Your task to perform on an android device: allow notifications from all sites in the chrome app Image 0: 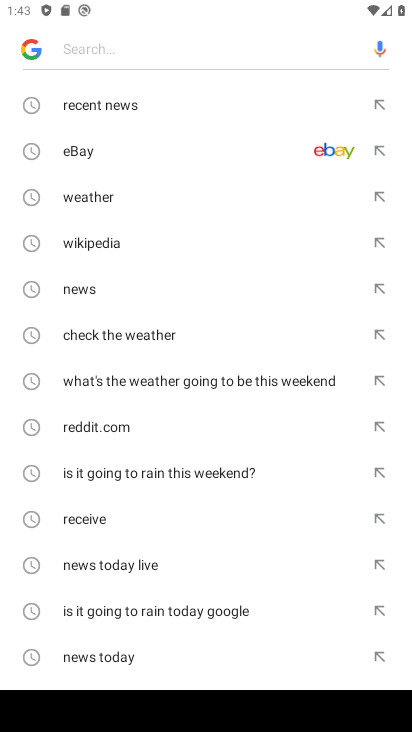
Step 0: press home button
Your task to perform on an android device: allow notifications from all sites in the chrome app Image 1: 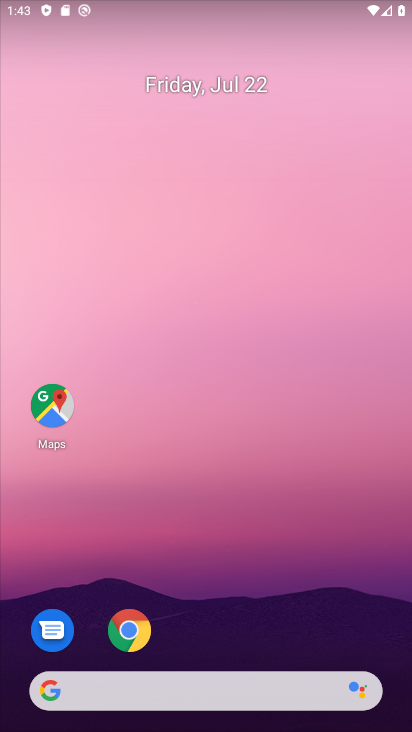
Step 1: click (129, 635)
Your task to perform on an android device: allow notifications from all sites in the chrome app Image 2: 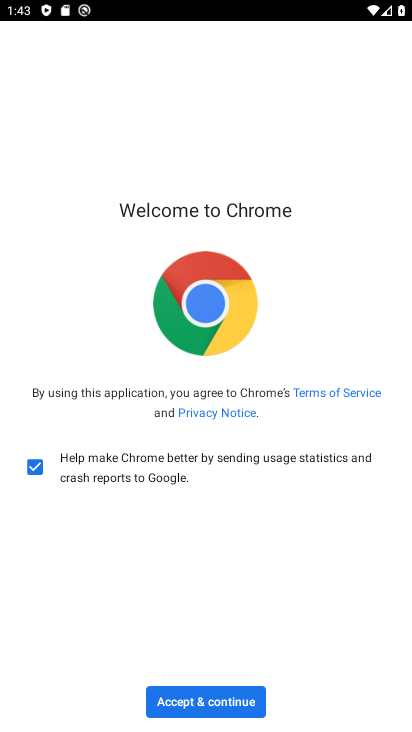
Step 2: click (194, 695)
Your task to perform on an android device: allow notifications from all sites in the chrome app Image 3: 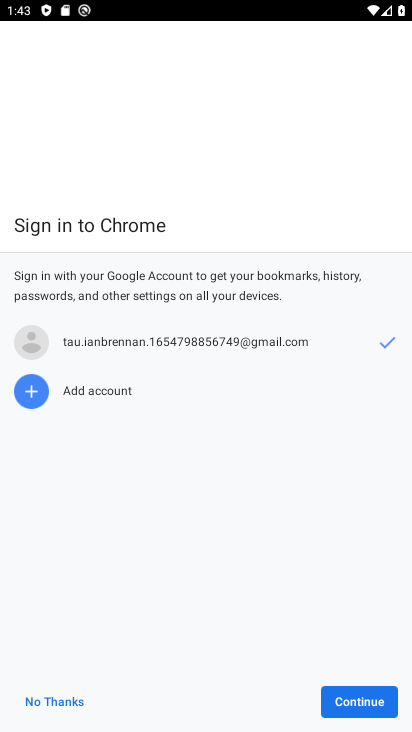
Step 3: click (364, 692)
Your task to perform on an android device: allow notifications from all sites in the chrome app Image 4: 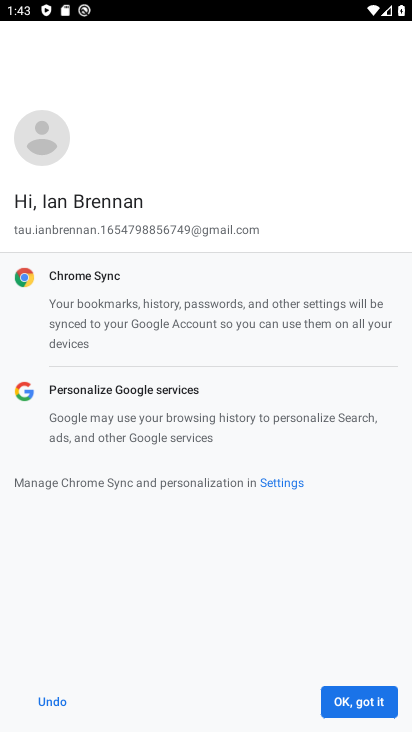
Step 4: click (342, 702)
Your task to perform on an android device: allow notifications from all sites in the chrome app Image 5: 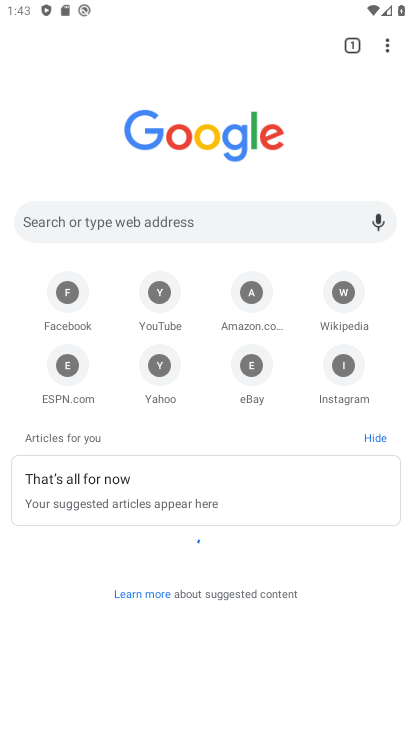
Step 5: click (377, 48)
Your task to perform on an android device: allow notifications from all sites in the chrome app Image 6: 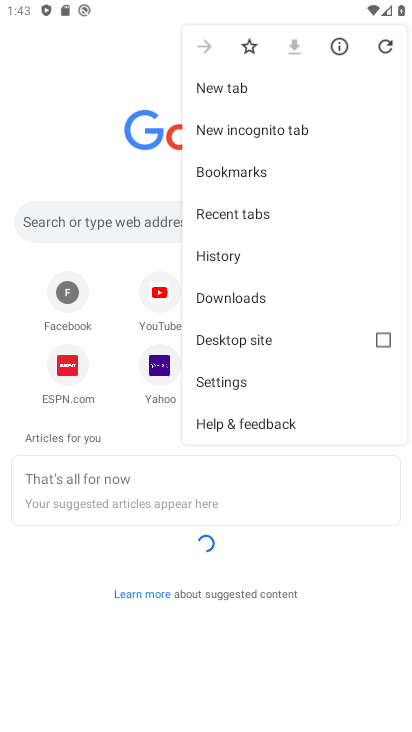
Step 6: click (232, 382)
Your task to perform on an android device: allow notifications from all sites in the chrome app Image 7: 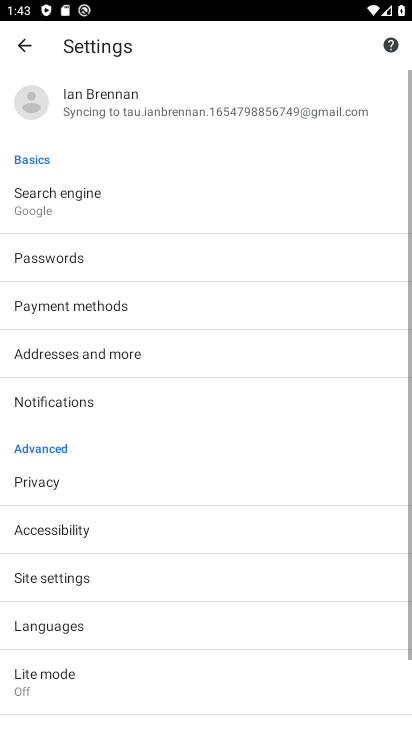
Step 7: click (72, 589)
Your task to perform on an android device: allow notifications from all sites in the chrome app Image 8: 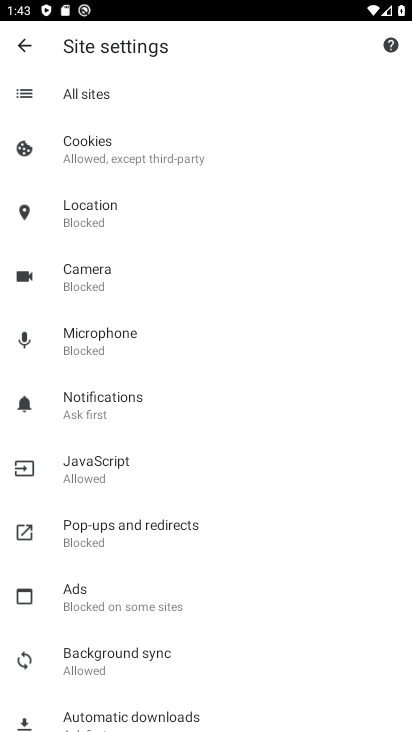
Step 8: click (118, 405)
Your task to perform on an android device: allow notifications from all sites in the chrome app Image 9: 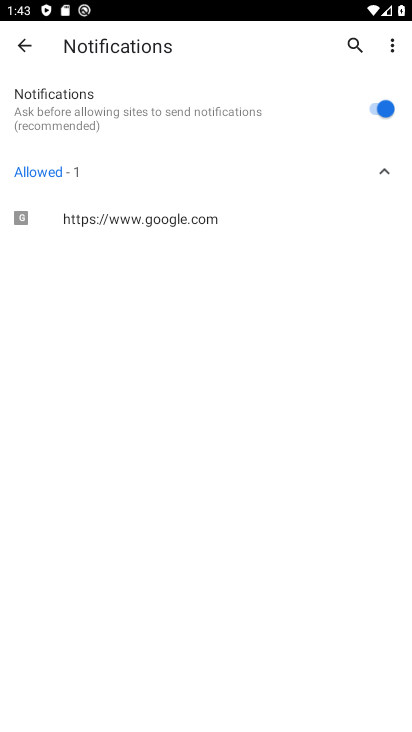
Step 9: task complete